Your task to perform on an android device: add a contact in the contacts app Image 0: 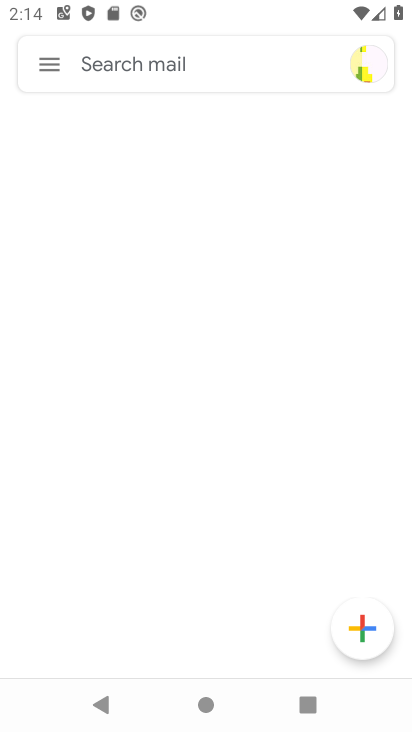
Step 0: press home button
Your task to perform on an android device: add a contact in the contacts app Image 1: 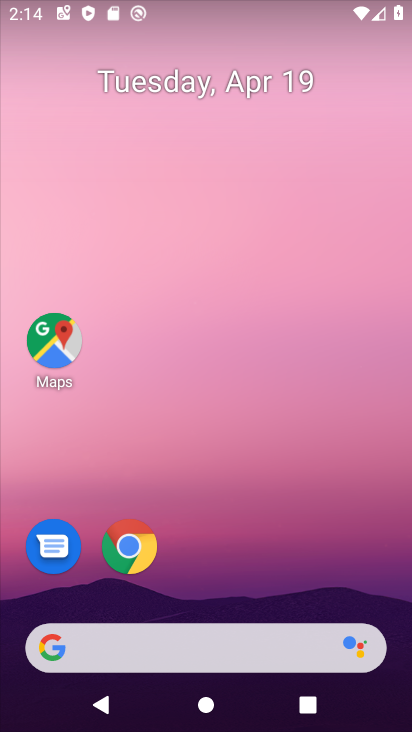
Step 1: drag from (163, 654) to (167, 49)
Your task to perform on an android device: add a contact in the contacts app Image 2: 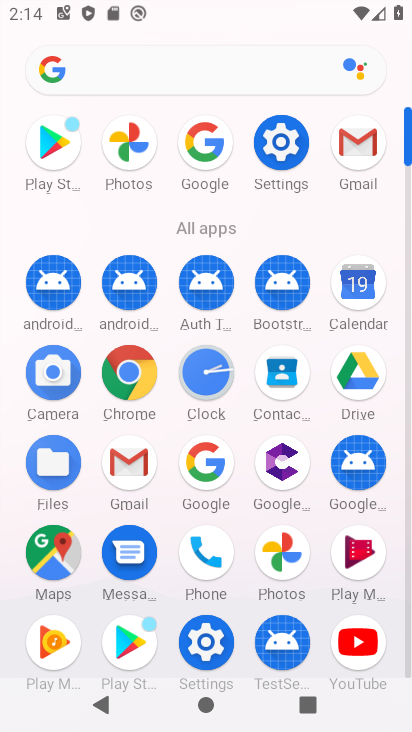
Step 2: click (270, 393)
Your task to perform on an android device: add a contact in the contacts app Image 3: 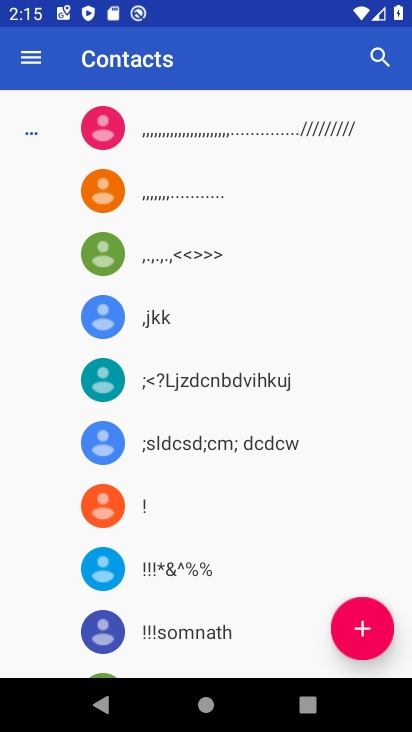
Step 3: click (358, 622)
Your task to perform on an android device: add a contact in the contacts app Image 4: 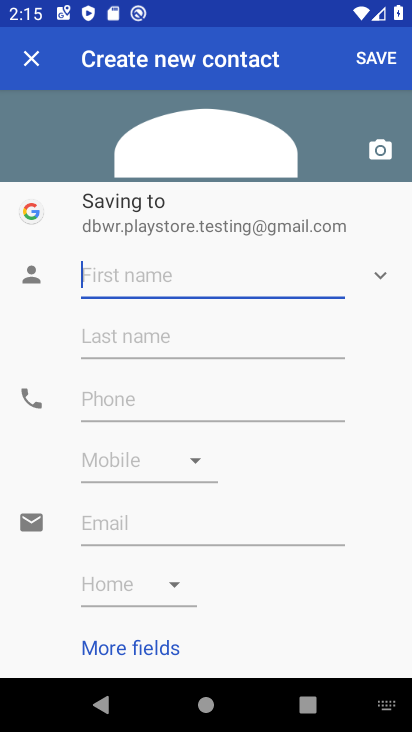
Step 4: type "cxbvbfdf"
Your task to perform on an android device: add a contact in the contacts app Image 5: 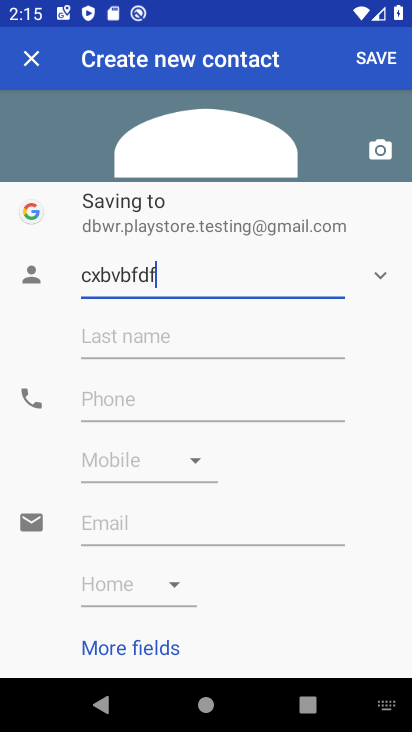
Step 5: click (161, 412)
Your task to perform on an android device: add a contact in the contacts app Image 6: 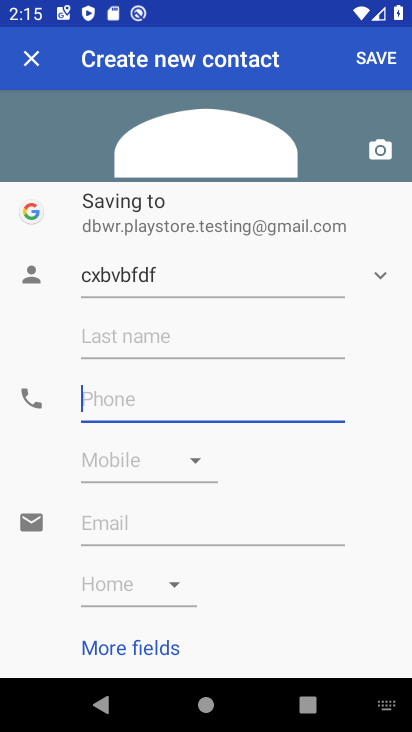
Step 6: type "7665645477"
Your task to perform on an android device: add a contact in the contacts app Image 7: 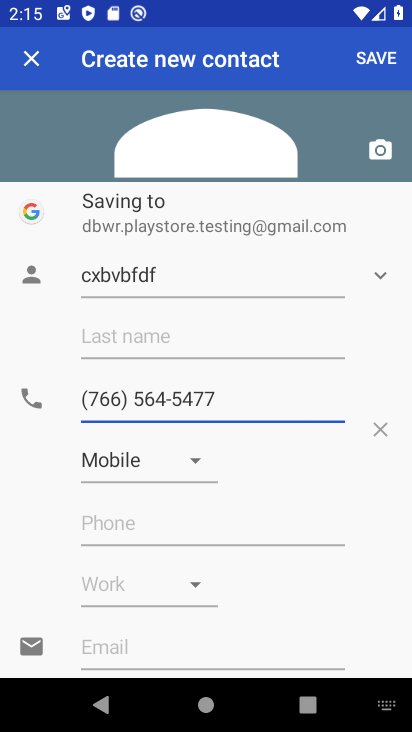
Step 7: click (356, 57)
Your task to perform on an android device: add a contact in the contacts app Image 8: 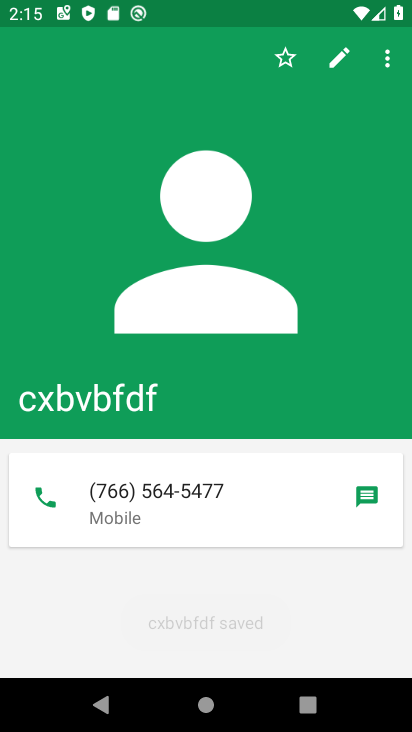
Step 8: task complete